Your task to perform on an android device: turn on improve location accuracy Image 0: 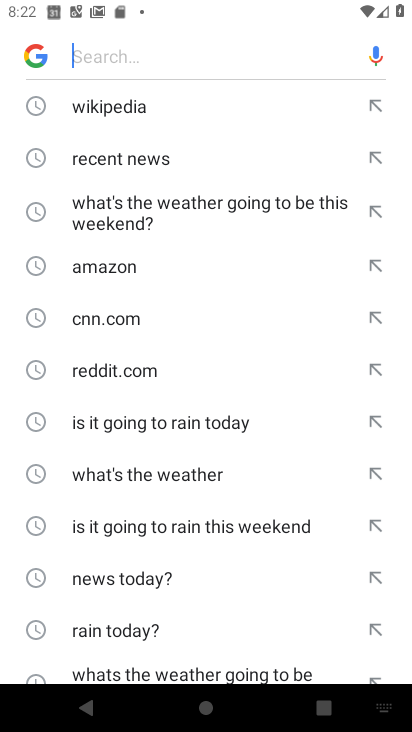
Step 0: press home button
Your task to perform on an android device: turn on improve location accuracy Image 1: 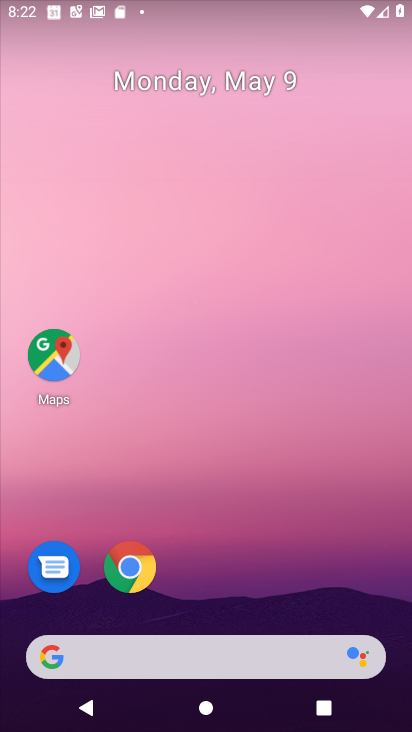
Step 1: drag from (229, 586) to (316, 177)
Your task to perform on an android device: turn on improve location accuracy Image 2: 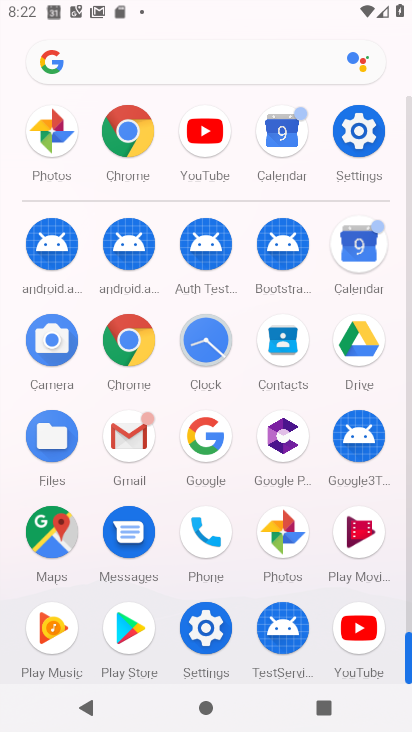
Step 2: click (217, 627)
Your task to perform on an android device: turn on improve location accuracy Image 3: 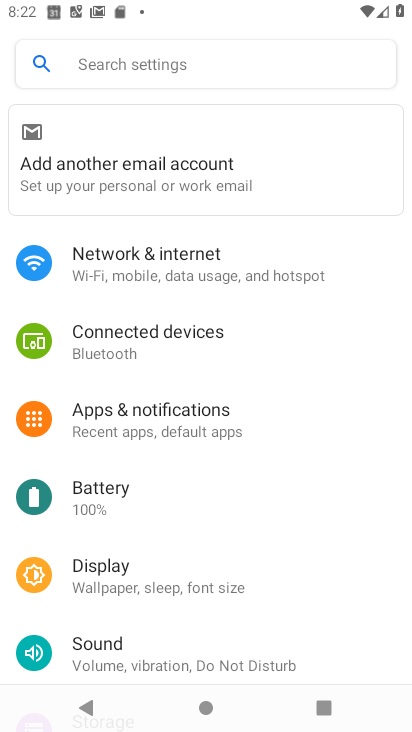
Step 3: drag from (146, 608) to (314, 10)
Your task to perform on an android device: turn on improve location accuracy Image 4: 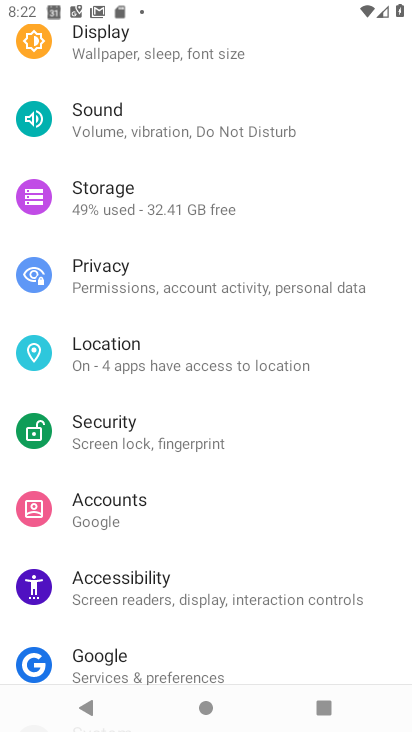
Step 4: drag from (217, 568) to (299, 185)
Your task to perform on an android device: turn on improve location accuracy Image 5: 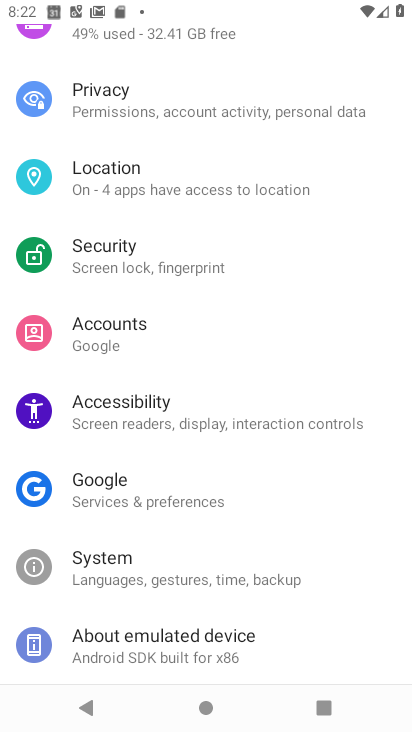
Step 5: click (167, 203)
Your task to perform on an android device: turn on improve location accuracy Image 6: 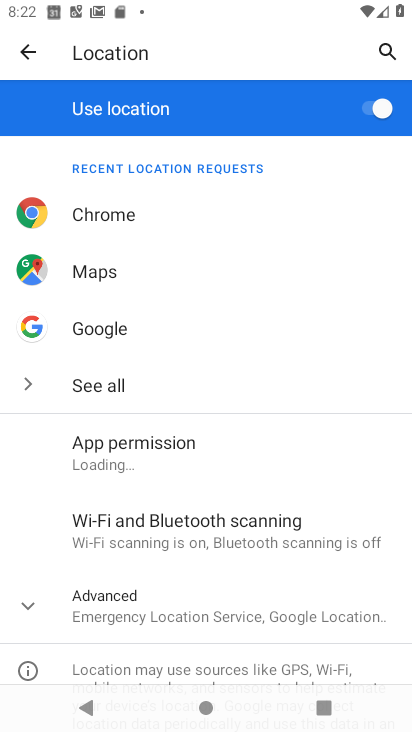
Step 6: drag from (258, 389) to (275, 274)
Your task to perform on an android device: turn on improve location accuracy Image 7: 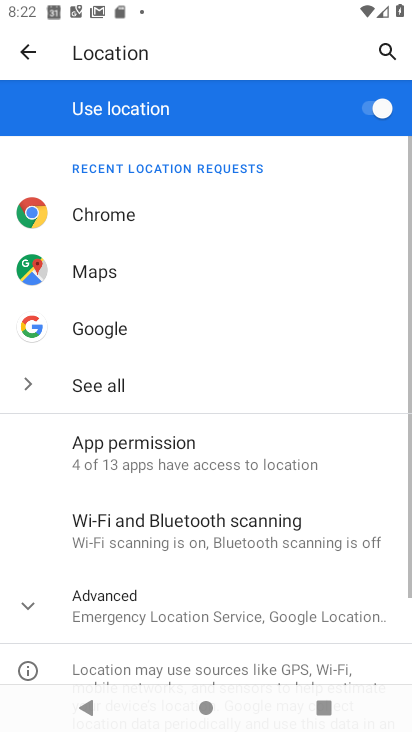
Step 7: drag from (178, 612) to (296, 321)
Your task to perform on an android device: turn on improve location accuracy Image 8: 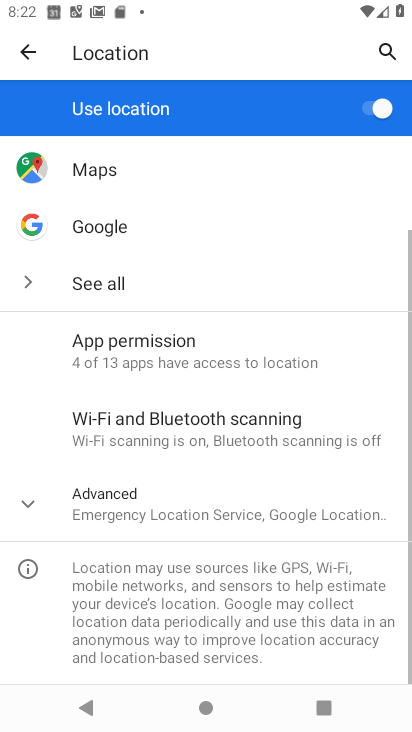
Step 8: click (128, 500)
Your task to perform on an android device: turn on improve location accuracy Image 9: 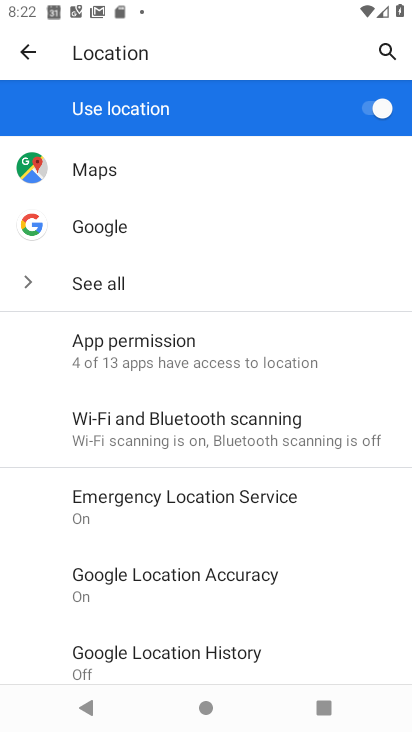
Step 9: drag from (244, 593) to (315, 261)
Your task to perform on an android device: turn on improve location accuracy Image 10: 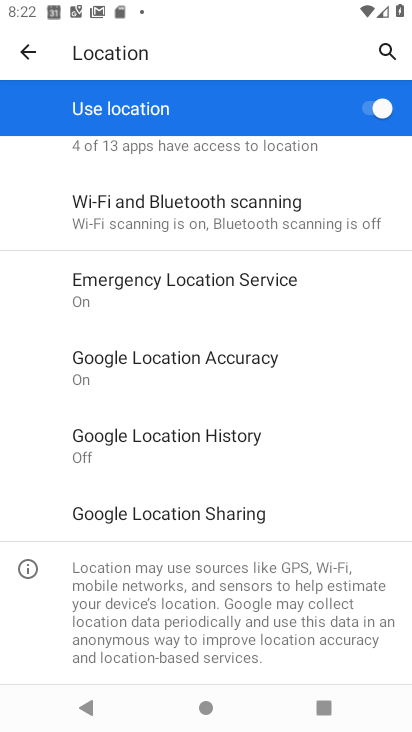
Step 10: click (211, 380)
Your task to perform on an android device: turn on improve location accuracy Image 11: 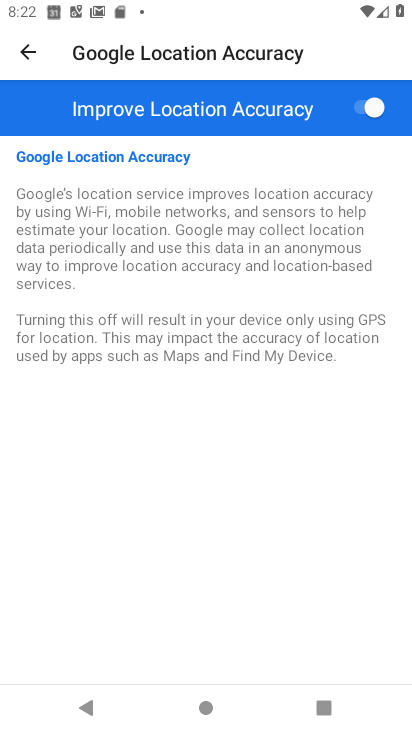
Step 11: task complete